Your task to perform on an android device: uninstall "LiveIn - Share Your Moment" Image 0: 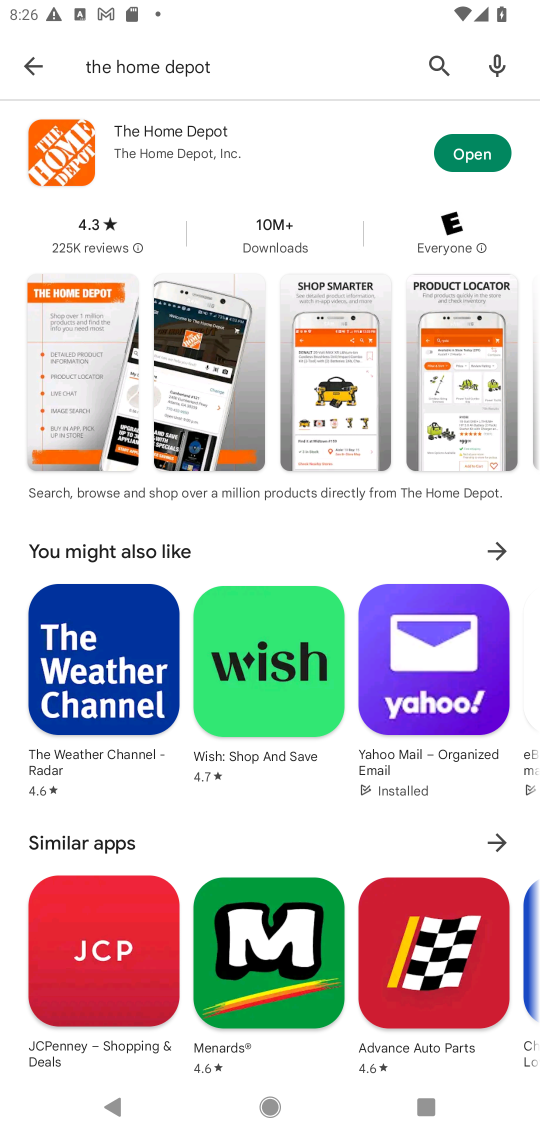
Step 0: click (435, 58)
Your task to perform on an android device: uninstall "LiveIn - Share Your Moment" Image 1: 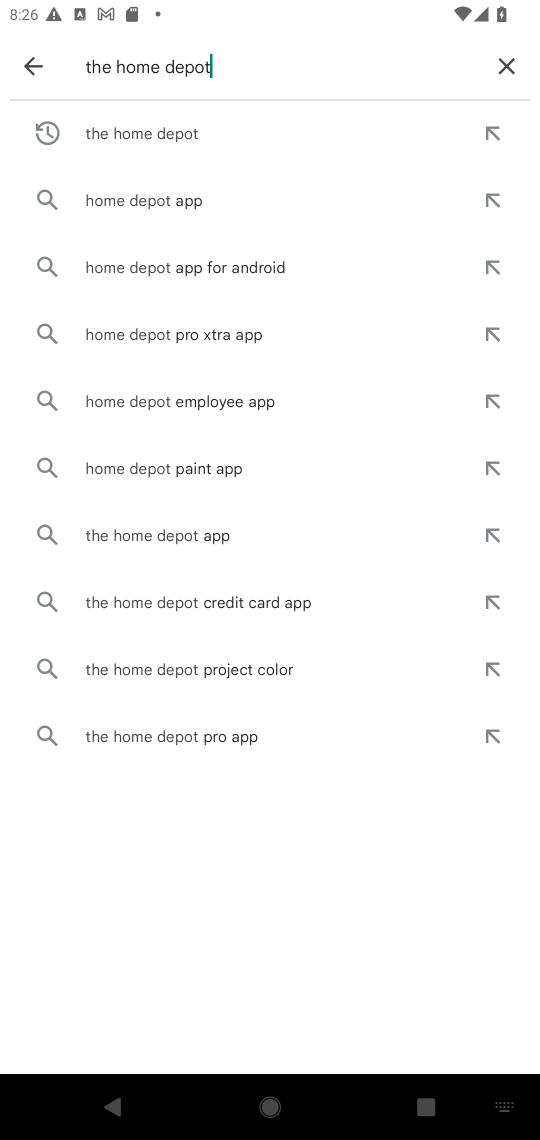
Step 1: click (499, 69)
Your task to perform on an android device: uninstall "LiveIn - Share Your Moment" Image 2: 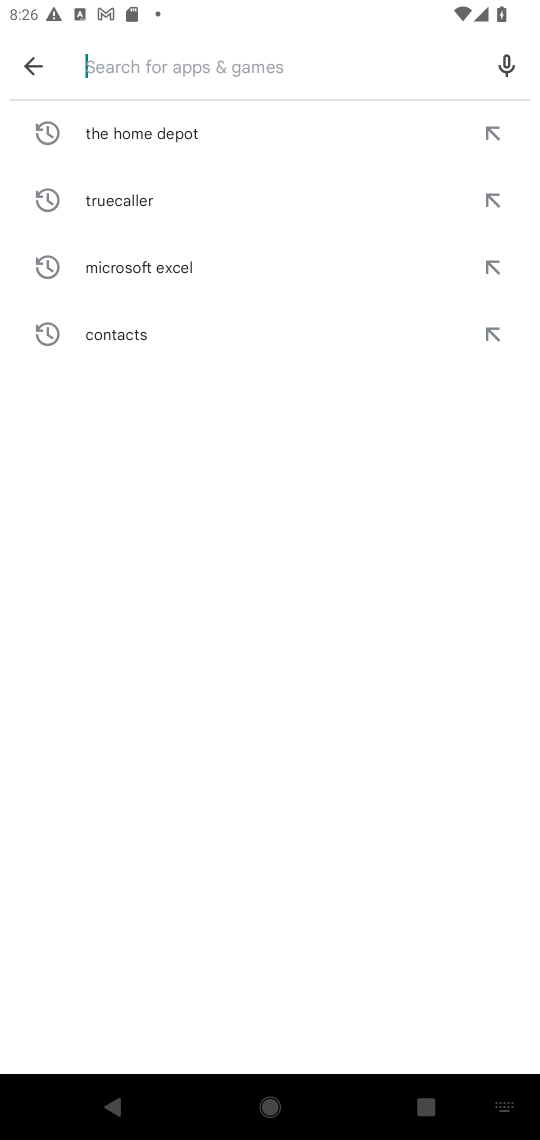
Step 2: type "LiveIn - Share Your Moment"
Your task to perform on an android device: uninstall "LiveIn - Share Your Moment" Image 3: 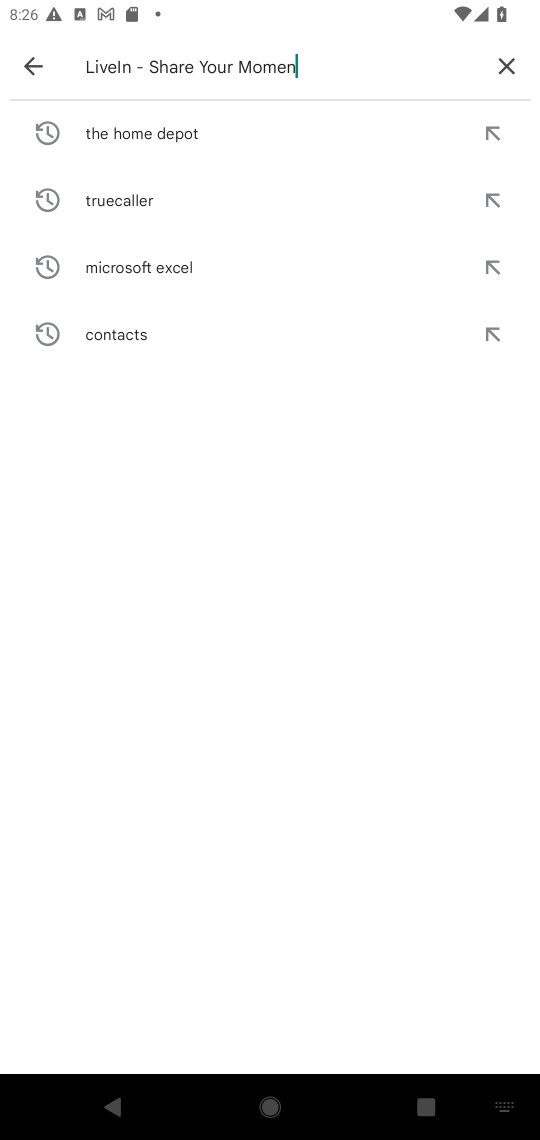
Step 3: type ""
Your task to perform on an android device: uninstall "LiveIn - Share Your Moment" Image 4: 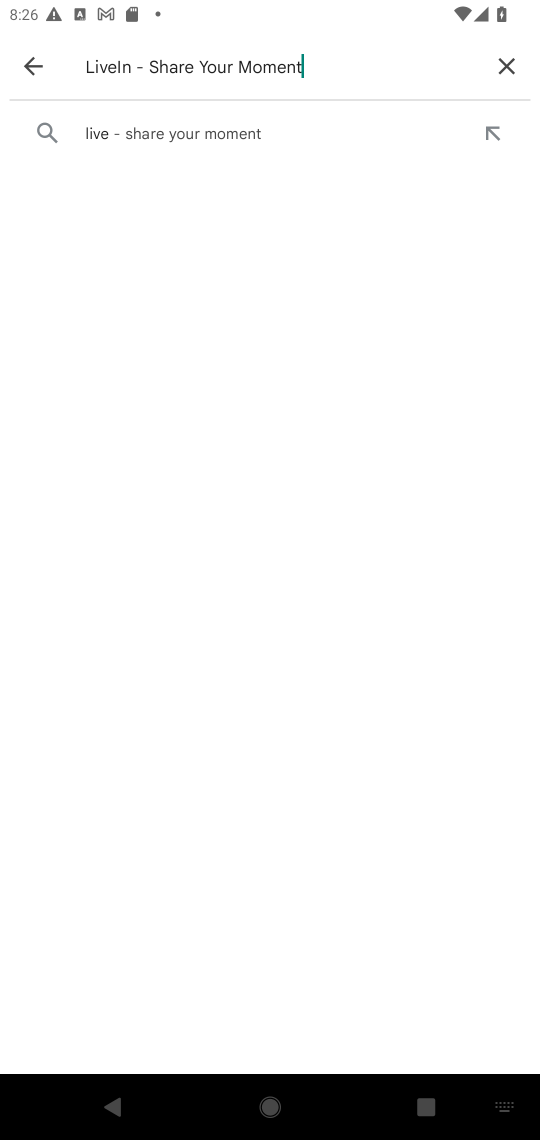
Step 4: click (277, 125)
Your task to perform on an android device: uninstall "LiveIn - Share Your Moment" Image 5: 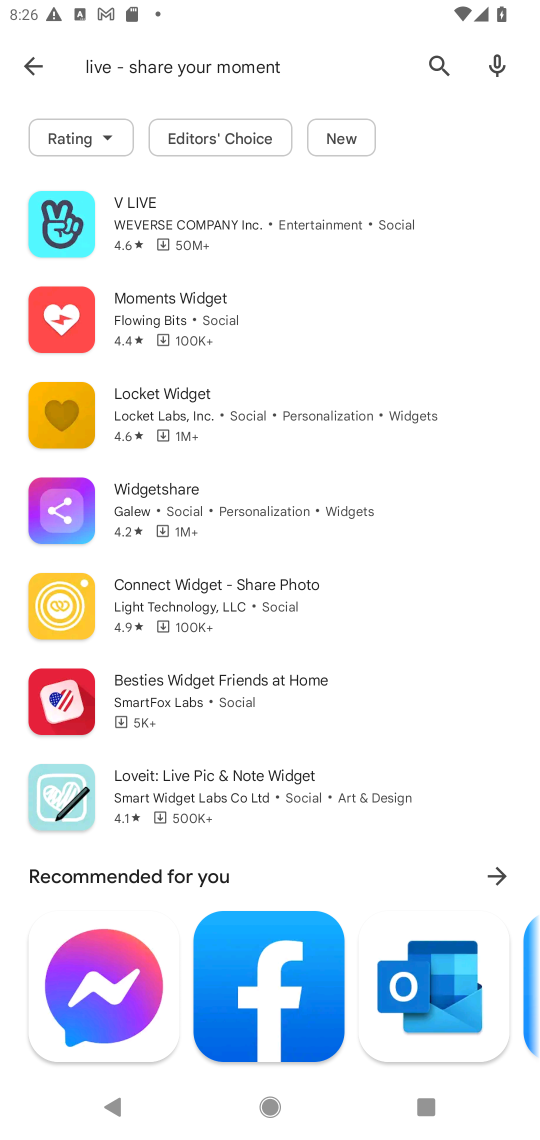
Step 5: task complete